Your task to perform on an android device: Check the weather Image 0: 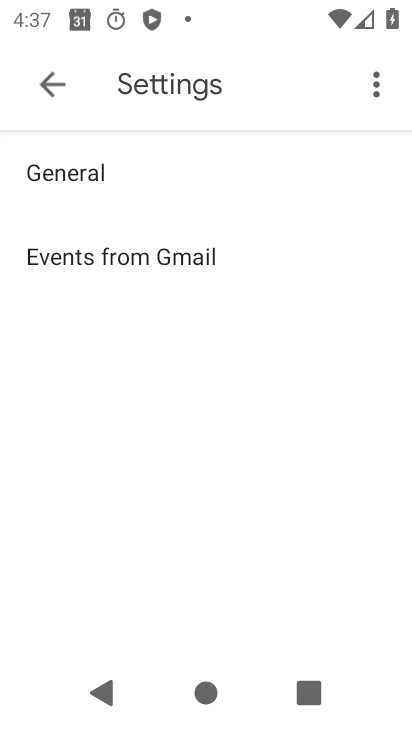
Step 0: press home button
Your task to perform on an android device: Check the weather Image 1: 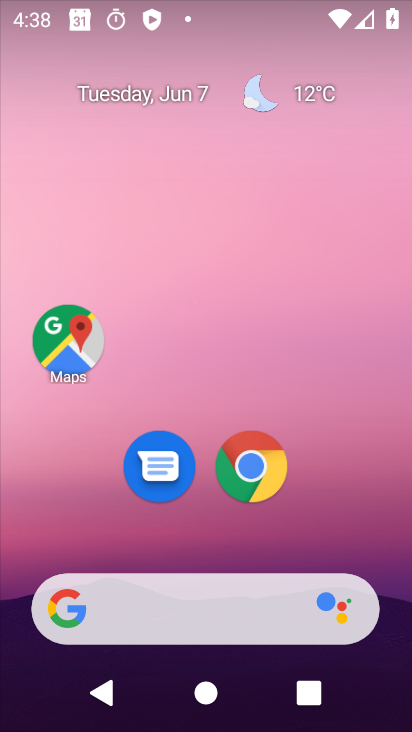
Step 1: click (242, 605)
Your task to perform on an android device: Check the weather Image 2: 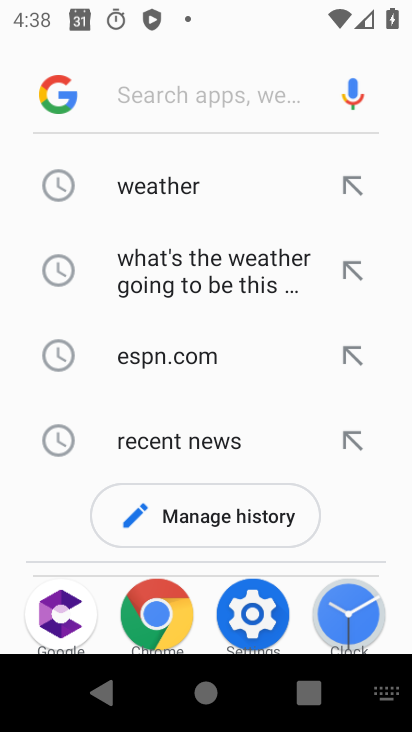
Step 2: click (174, 197)
Your task to perform on an android device: Check the weather Image 3: 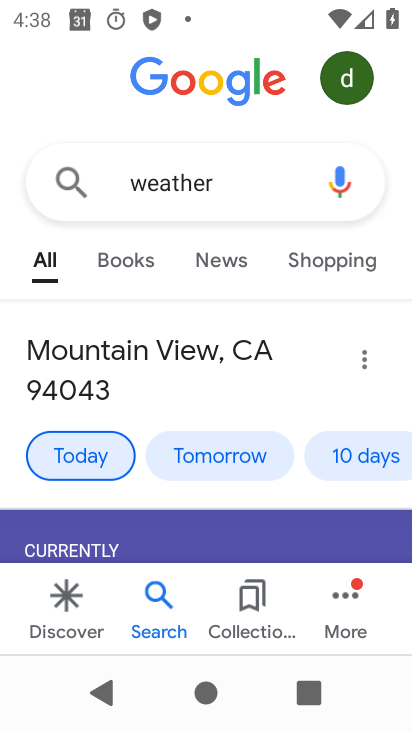
Step 3: task complete